Your task to perform on an android device: change notification settings in the gmail app Image 0: 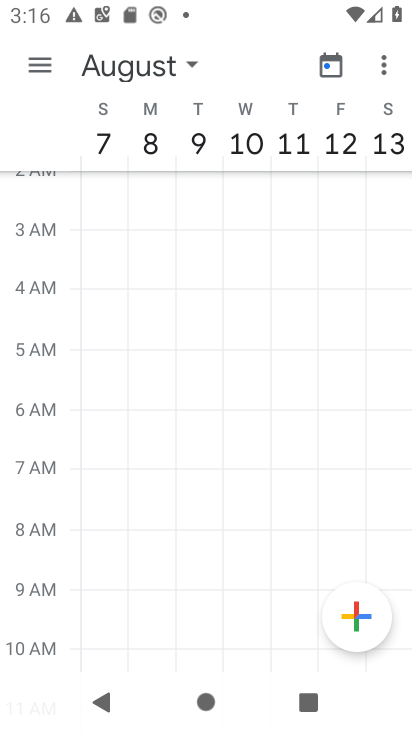
Step 0: press home button
Your task to perform on an android device: change notification settings in the gmail app Image 1: 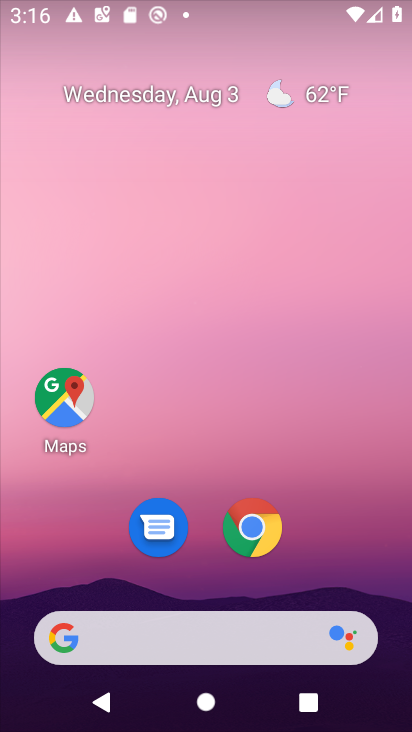
Step 1: drag from (311, 499) to (222, 19)
Your task to perform on an android device: change notification settings in the gmail app Image 2: 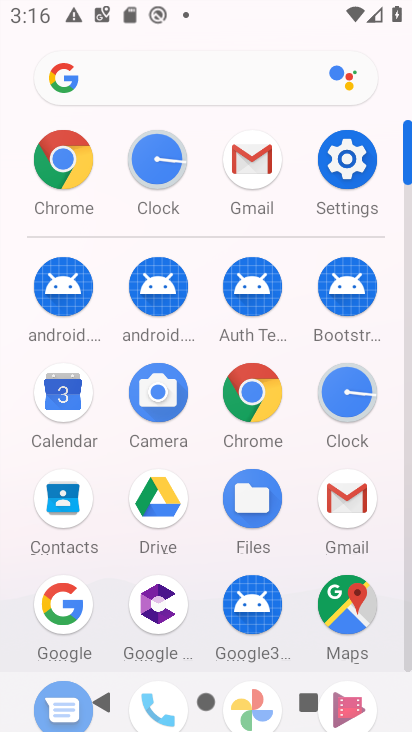
Step 2: click (339, 481)
Your task to perform on an android device: change notification settings in the gmail app Image 3: 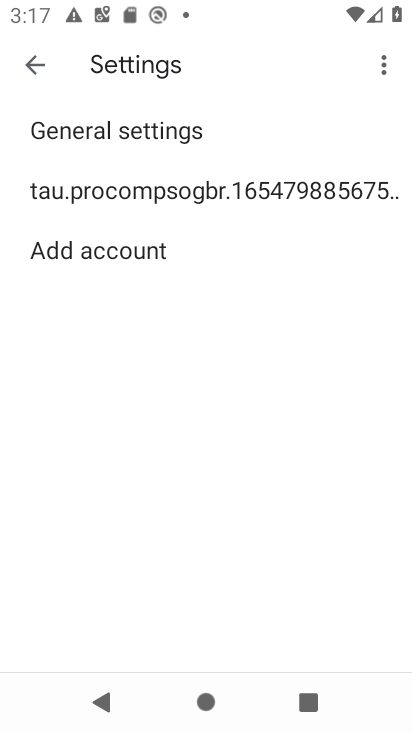
Step 3: click (118, 196)
Your task to perform on an android device: change notification settings in the gmail app Image 4: 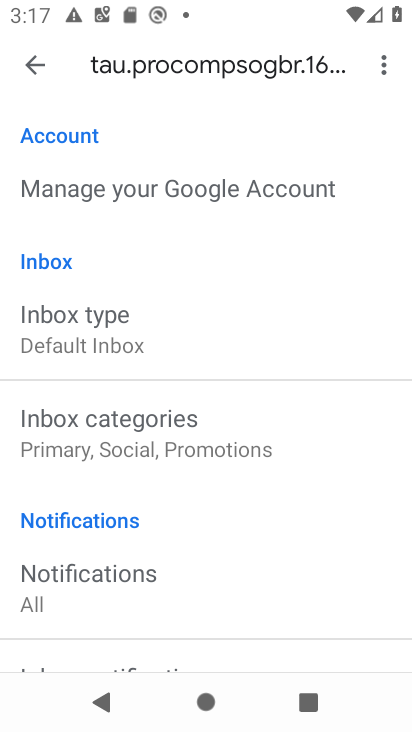
Step 4: drag from (255, 590) to (291, 229)
Your task to perform on an android device: change notification settings in the gmail app Image 5: 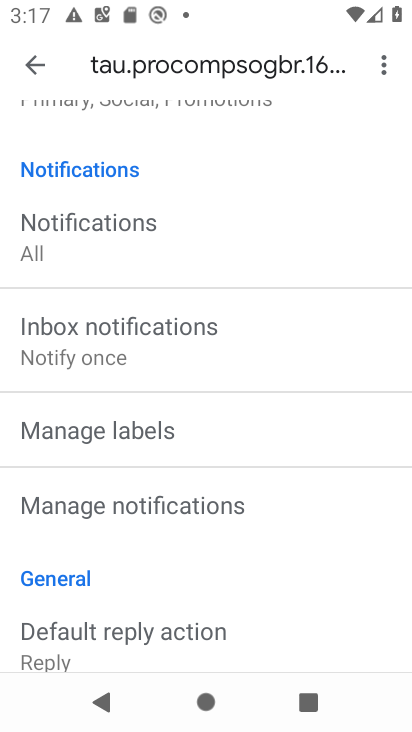
Step 5: click (166, 508)
Your task to perform on an android device: change notification settings in the gmail app Image 6: 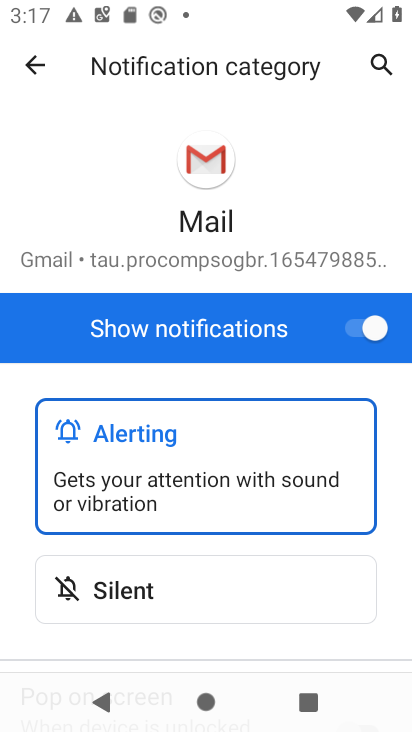
Step 6: click (367, 330)
Your task to perform on an android device: change notification settings in the gmail app Image 7: 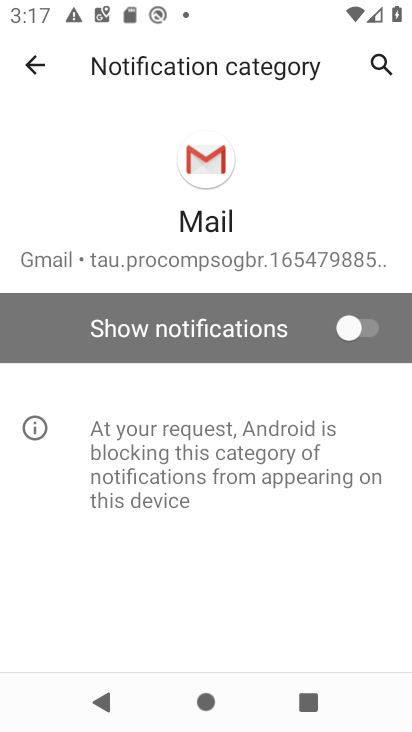
Step 7: task complete